Your task to perform on an android device: Open the calendar and show me this week's events? Image 0: 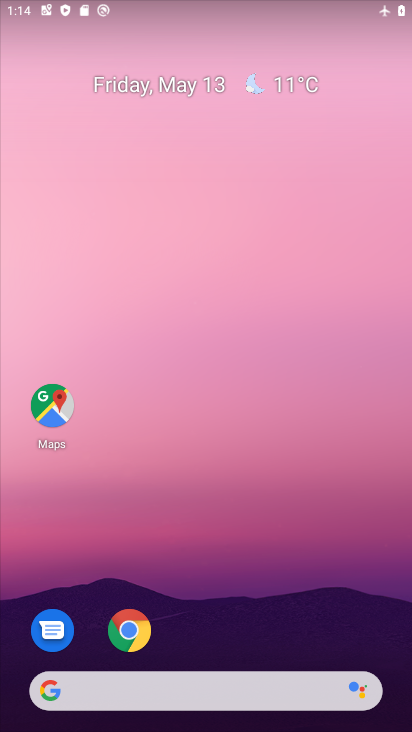
Step 0: click (325, 0)
Your task to perform on an android device: Open the calendar and show me this week's events? Image 1: 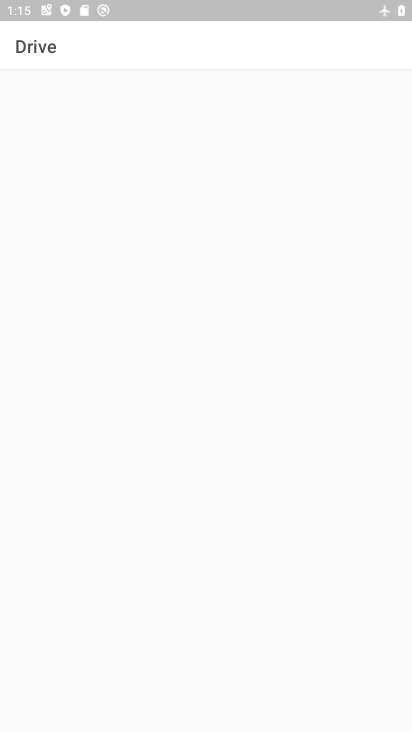
Step 1: press home button
Your task to perform on an android device: Open the calendar and show me this week's events? Image 2: 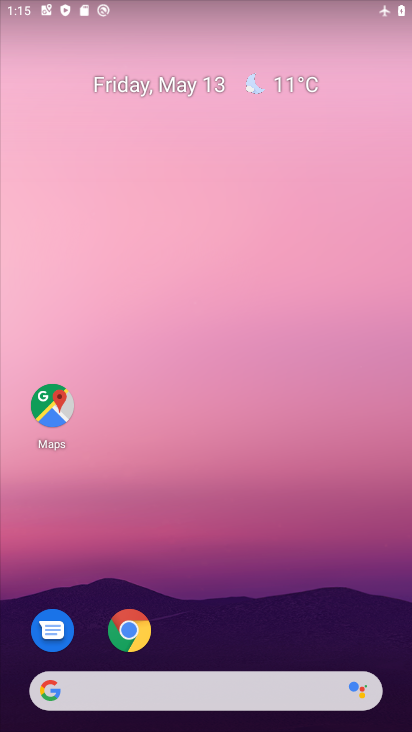
Step 2: drag from (326, 618) to (318, 22)
Your task to perform on an android device: Open the calendar and show me this week's events? Image 3: 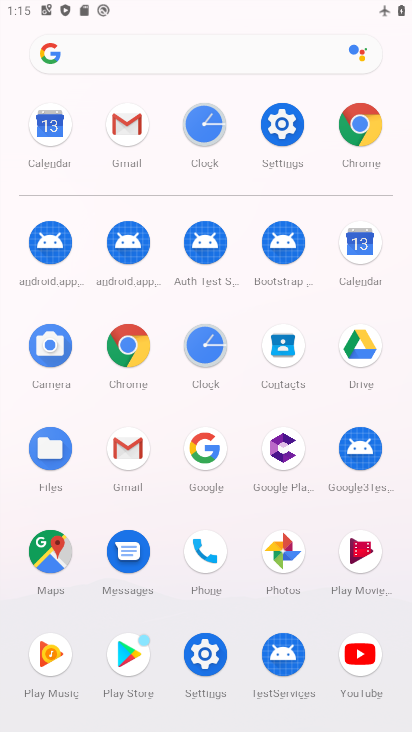
Step 3: click (50, 130)
Your task to perform on an android device: Open the calendar and show me this week's events? Image 4: 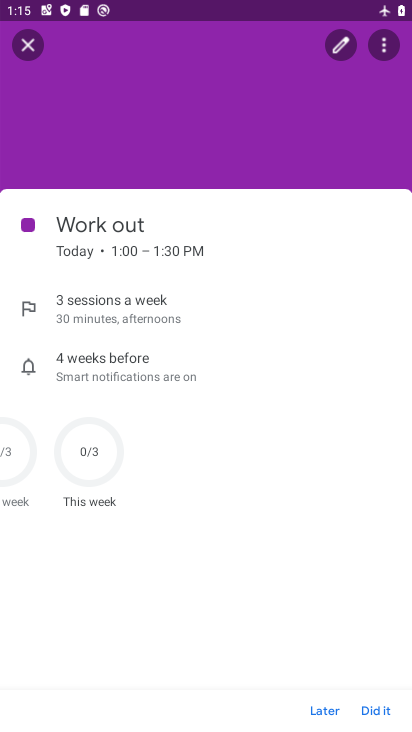
Step 4: click (36, 54)
Your task to perform on an android device: Open the calendar and show me this week's events? Image 5: 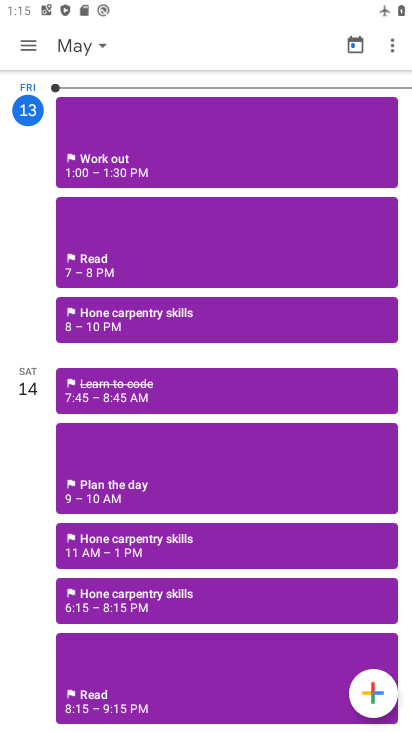
Step 5: click (38, 49)
Your task to perform on an android device: Open the calendar and show me this week's events? Image 6: 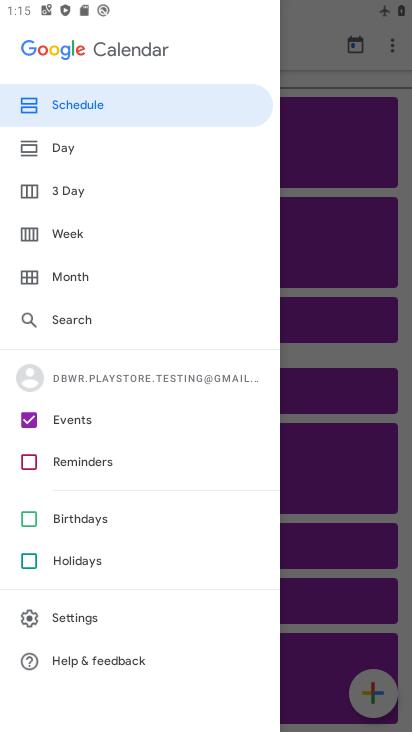
Step 6: click (70, 230)
Your task to perform on an android device: Open the calendar and show me this week's events? Image 7: 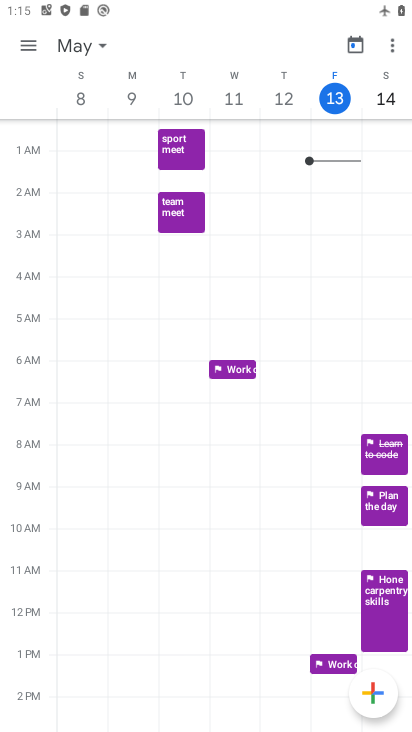
Step 7: click (35, 52)
Your task to perform on an android device: Open the calendar and show me this week's events? Image 8: 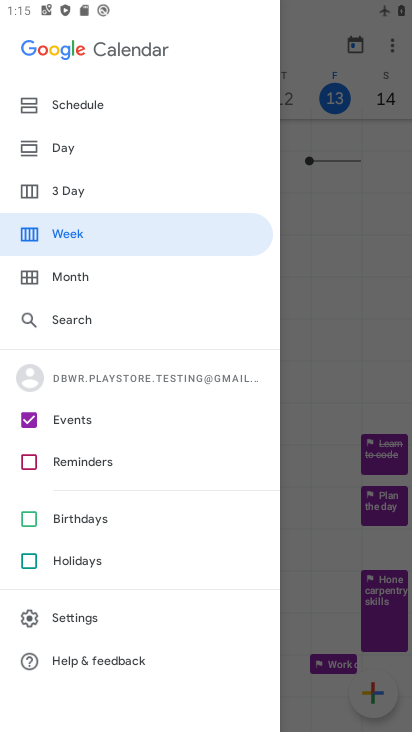
Step 8: click (57, 243)
Your task to perform on an android device: Open the calendar and show me this week's events? Image 9: 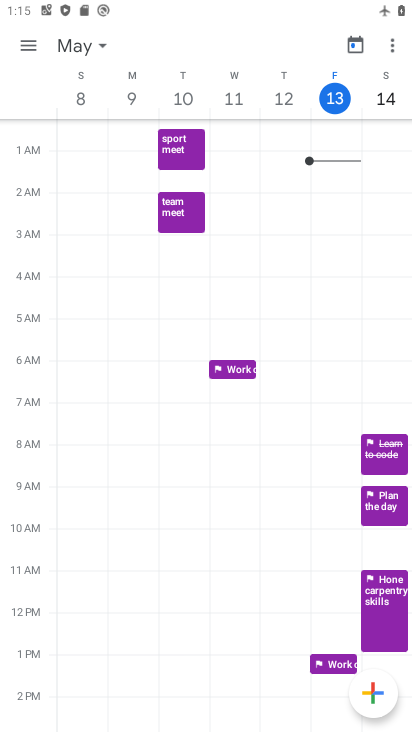
Step 9: task complete